Your task to perform on an android device: turn notification dots off Image 0: 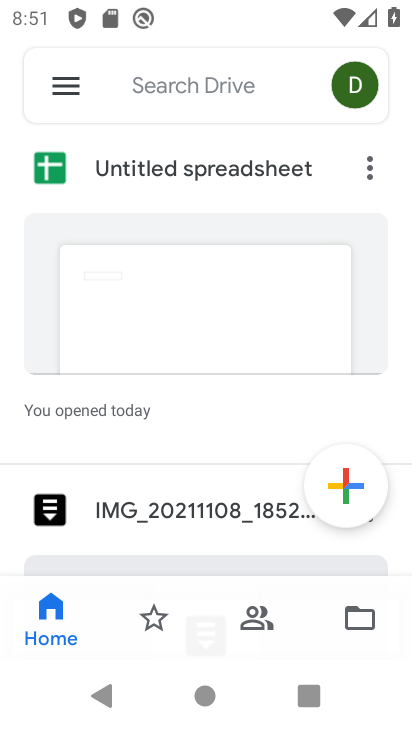
Step 0: press home button
Your task to perform on an android device: turn notification dots off Image 1: 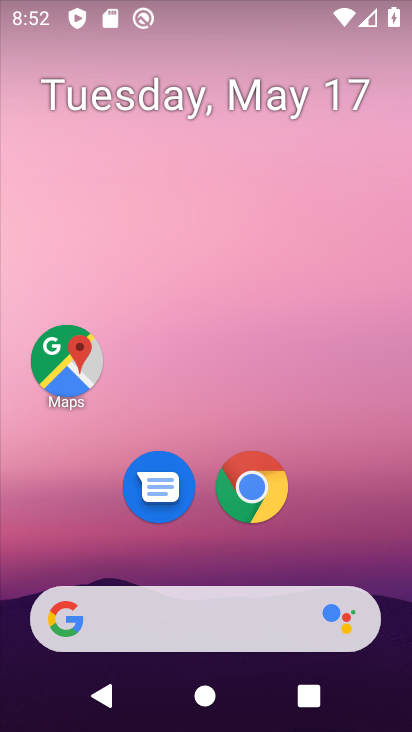
Step 1: drag from (311, 660) to (289, 254)
Your task to perform on an android device: turn notification dots off Image 2: 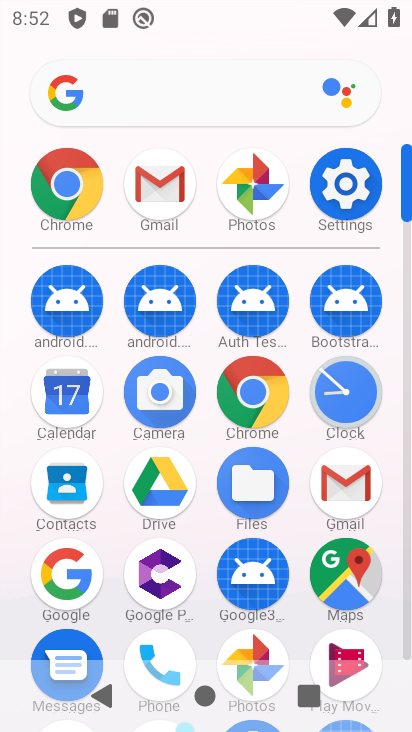
Step 2: click (345, 169)
Your task to perform on an android device: turn notification dots off Image 3: 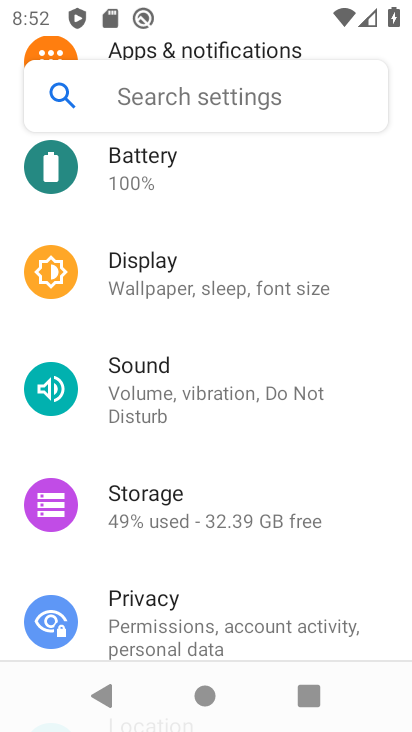
Step 3: click (210, 107)
Your task to perform on an android device: turn notification dots off Image 4: 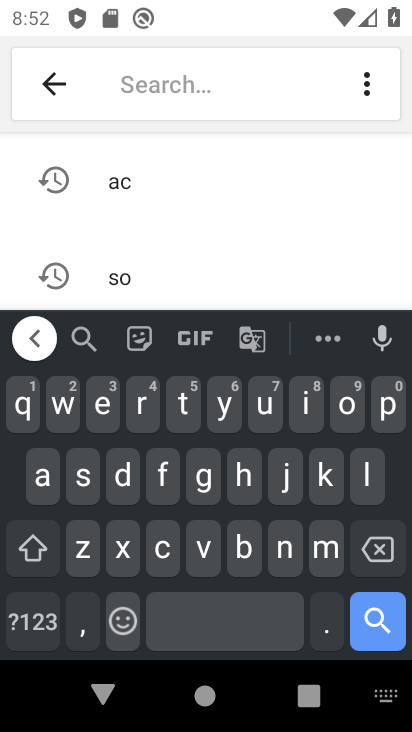
Step 4: click (125, 487)
Your task to perform on an android device: turn notification dots off Image 5: 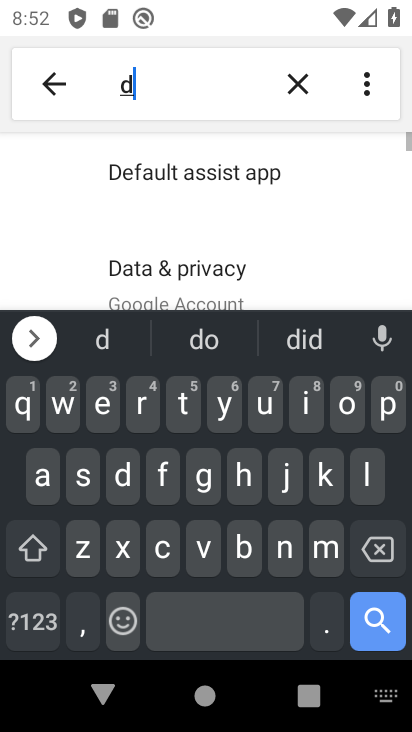
Step 5: click (335, 413)
Your task to perform on an android device: turn notification dots off Image 6: 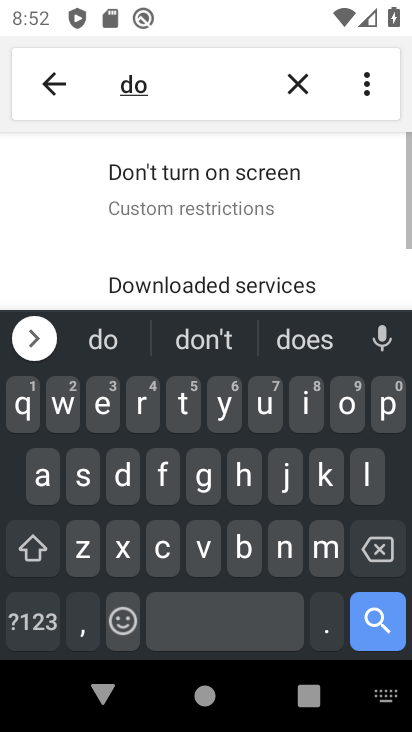
Step 6: click (186, 423)
Your task to perform on an android device: turn notification dots off Image 7: 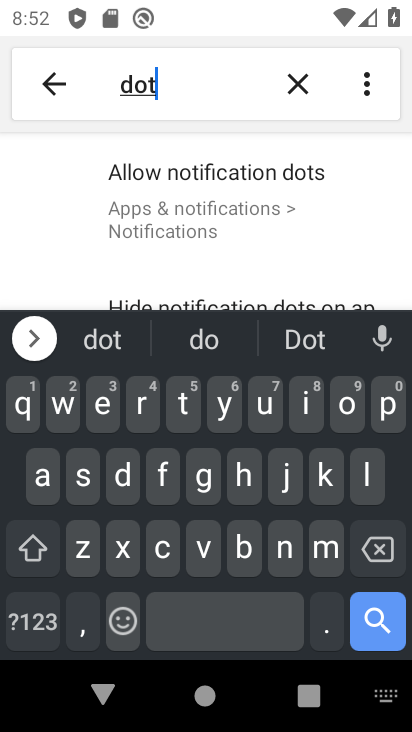
Step 7: click (232, 215)
Your task to perform on an android device: turn notification dots off Image 8: 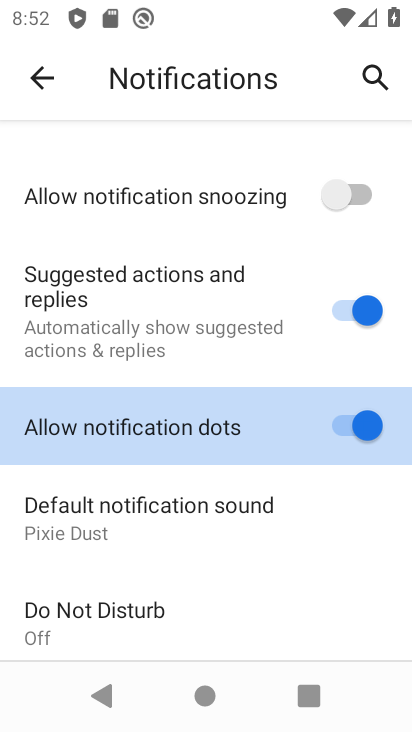
Step 8: click (348, 419)
Your task to perform on an android device: turn notification dots off Image 9: 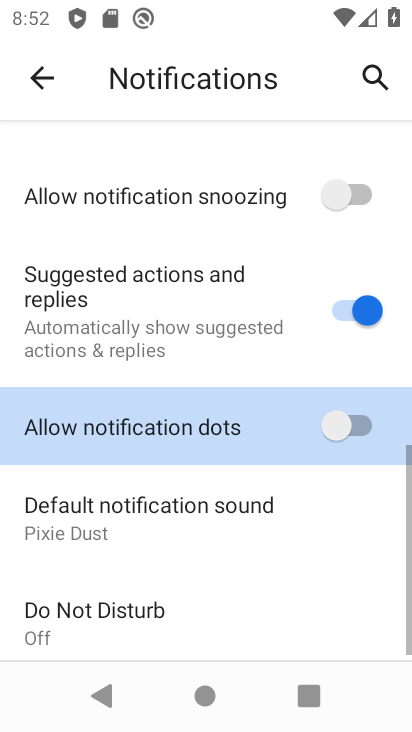
Step 9: task complete